Your task to perform on an android device: When is my next meeting? Image 0: 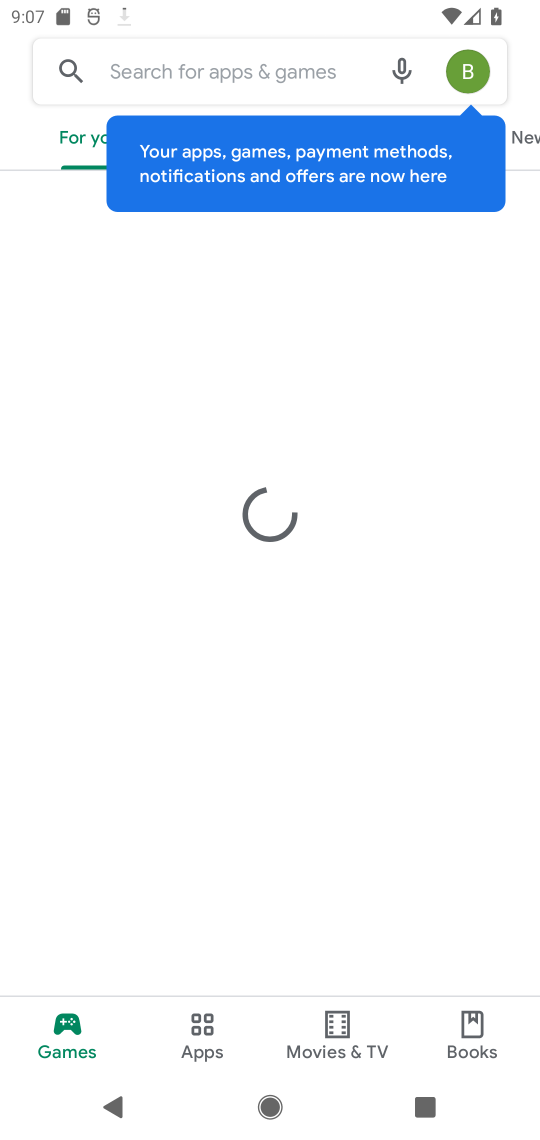
Step 0: press home button
Your task to perform on an android device: When is my next meeting? Image 1: 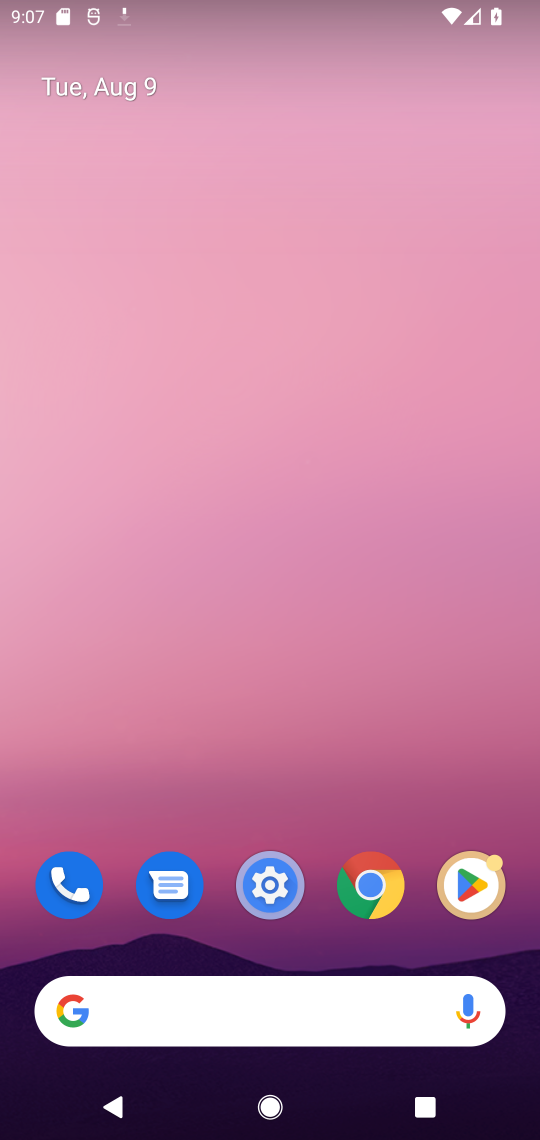
Step 1: drag from (213, 747) to (190, 117)
Your task to perform on an android device: When is my next meeting? Image 2: 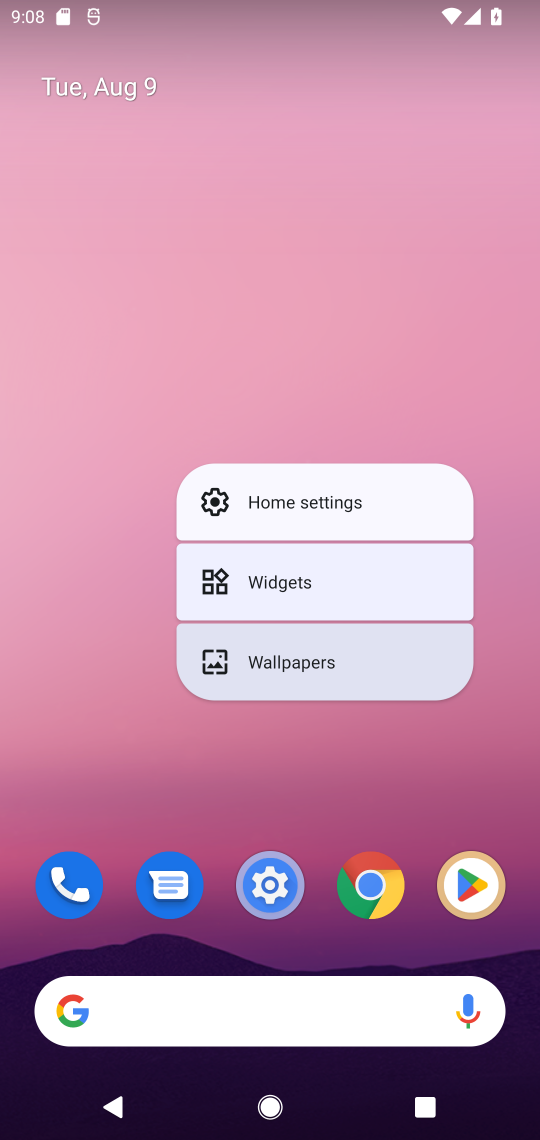
Step 2: drag from (243, 985) to (217, 147)
Your task to perform on an android device: When is my next meeting? Image 3: 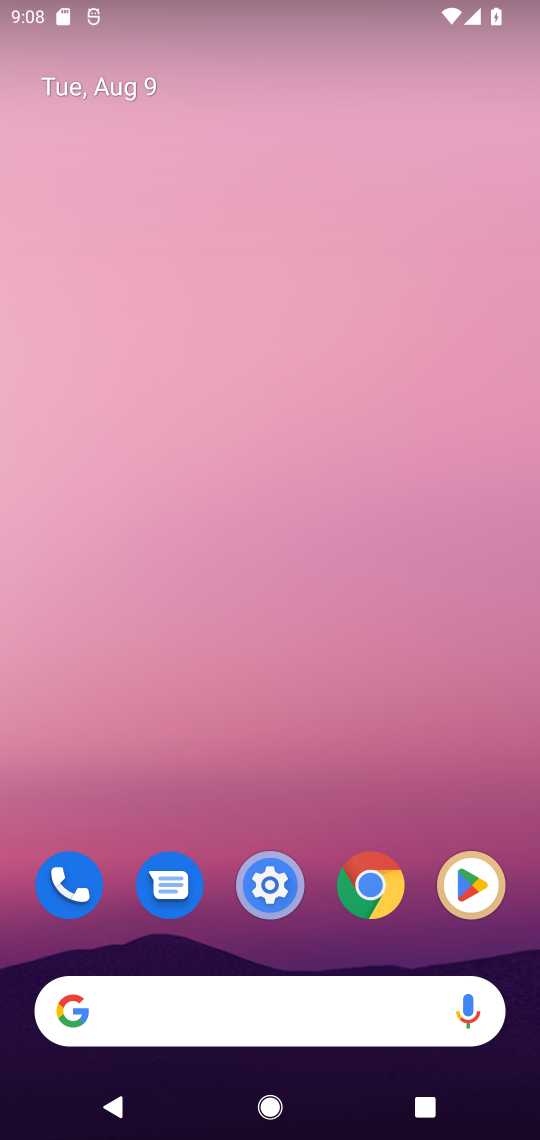
Step 3: drag from (273, 1022) to (225, 365)
Your task to perform on an android device: When is my next meeting? Image 4: 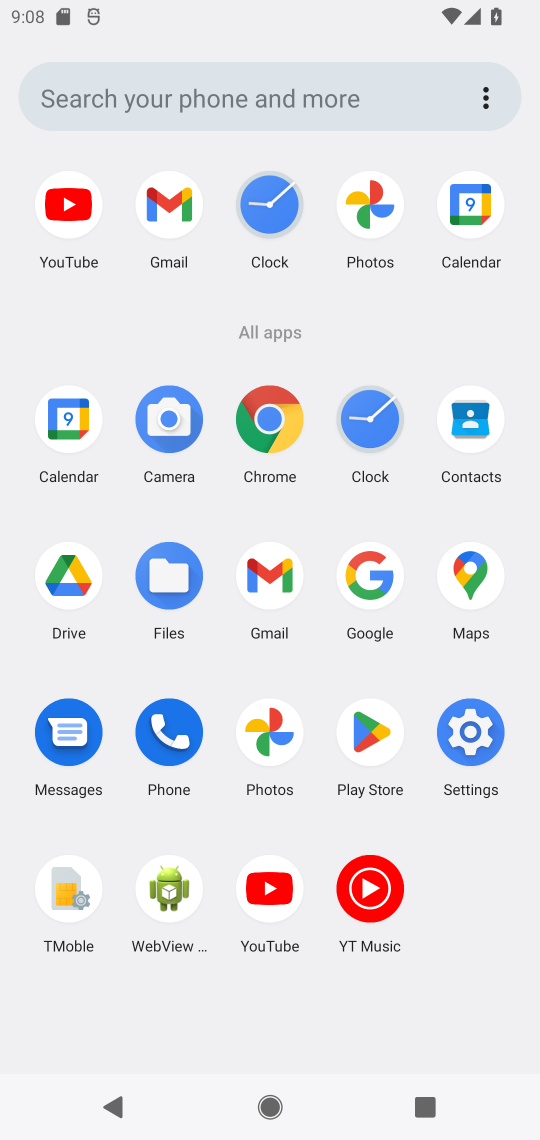
Step 4: click (70, 430)
Your task to perform on an android device: When is my next meeting? Image 5: 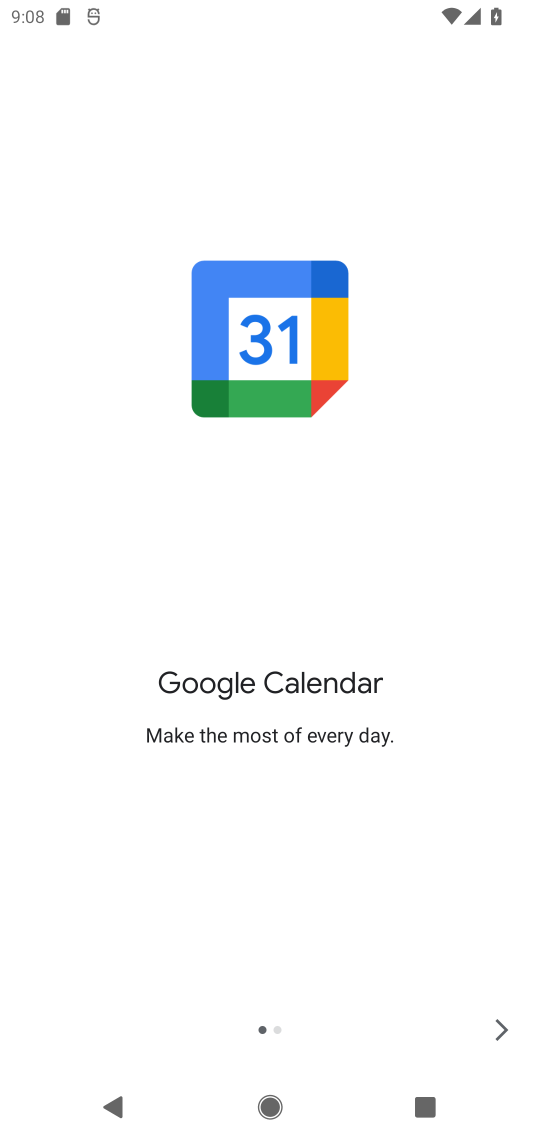
Step 5: click (516, 1040)
Your task to perform on an android device: When is my next meeting? Image 6: 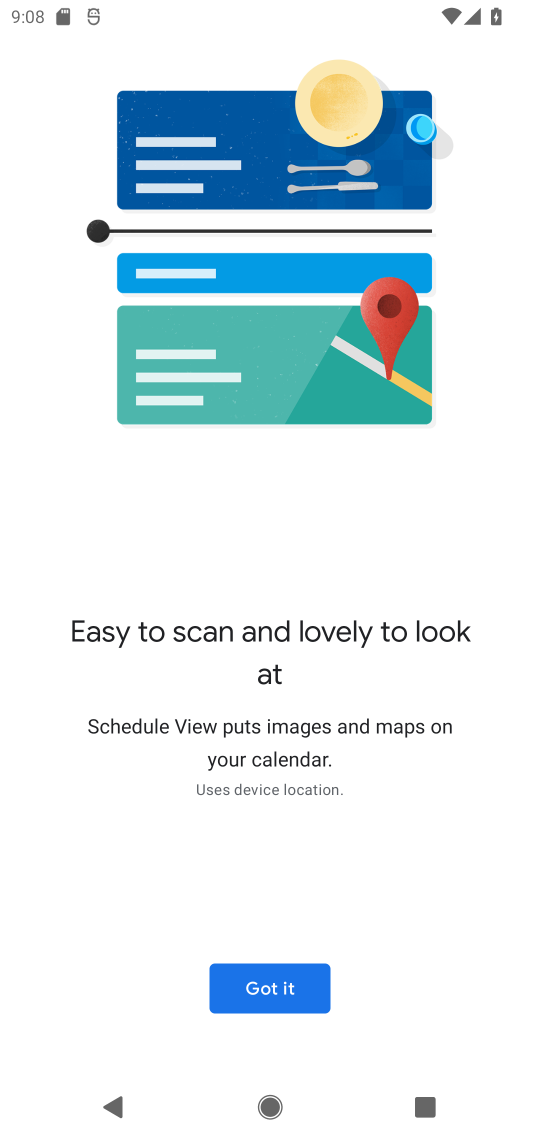
Step 6: click (298, 1004)
Your task to perform on an android device: When is my next meeting? Image 7: 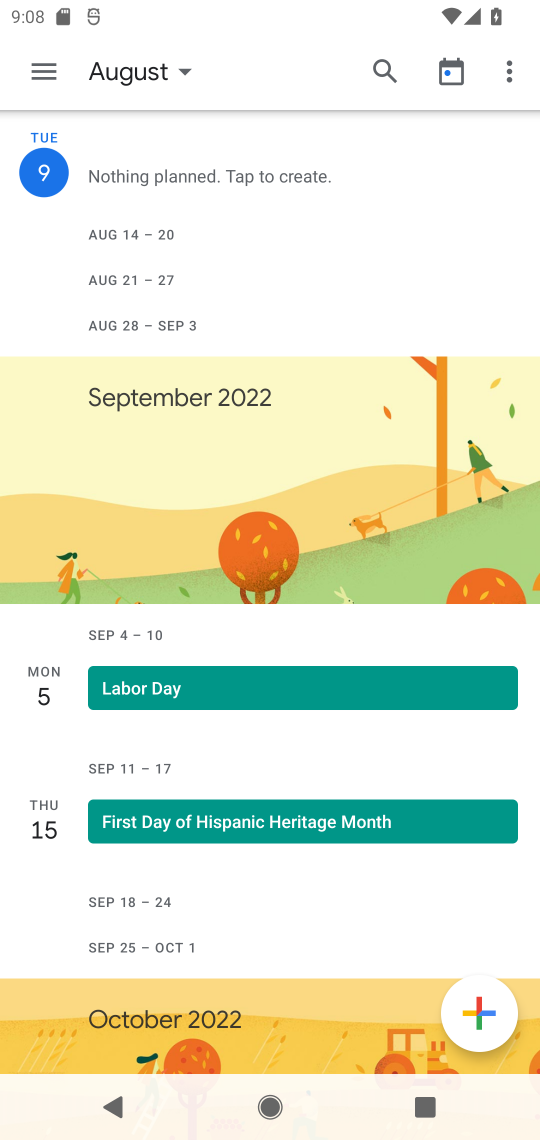
Step 7: click (42, 75)
Your task to perform on an android device: When is my next meeting? Image 8: 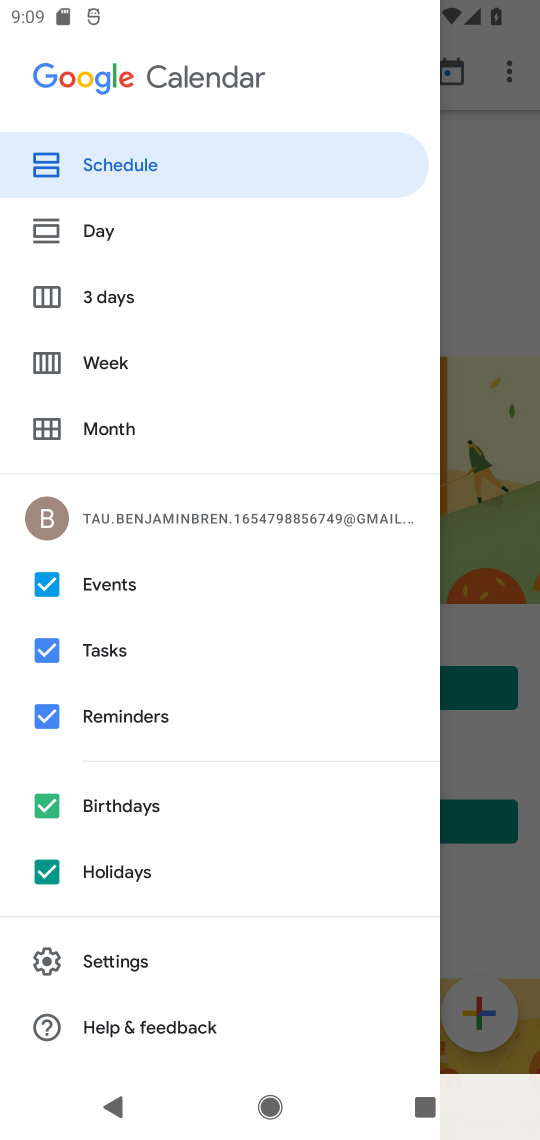
Step 8: click (119, 148)
Your task to perform on an android device: When is my next meeting? Image 9: 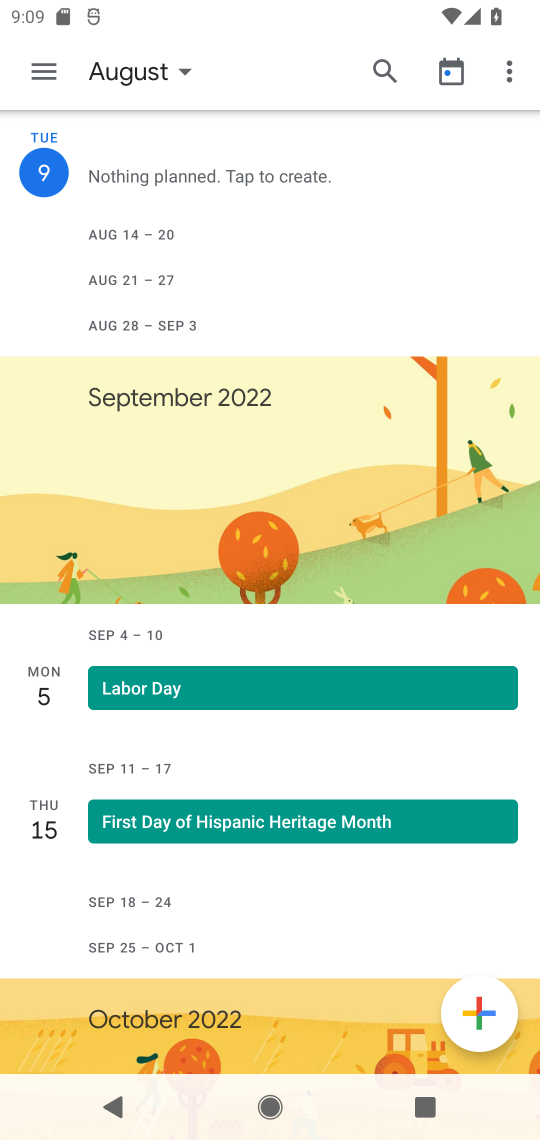
Step 9: task complete